Your task to perform on an android device: Open Chrome and go to settings Image 0: 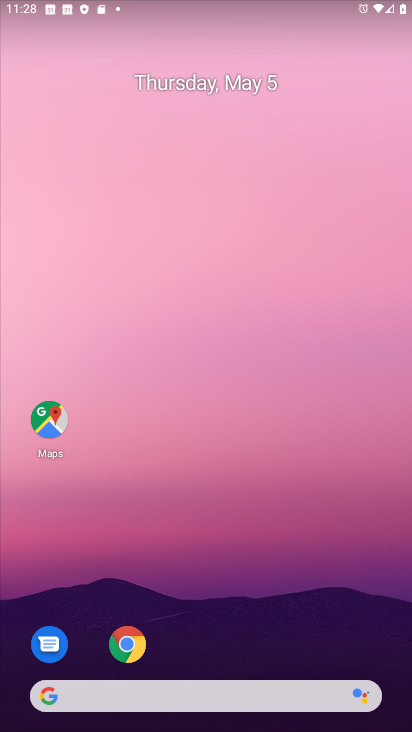
Step 0: drag from (230, 654) to (273, 294)
Your task to perform on an android device: Open Chrome and go to settings Image 1: 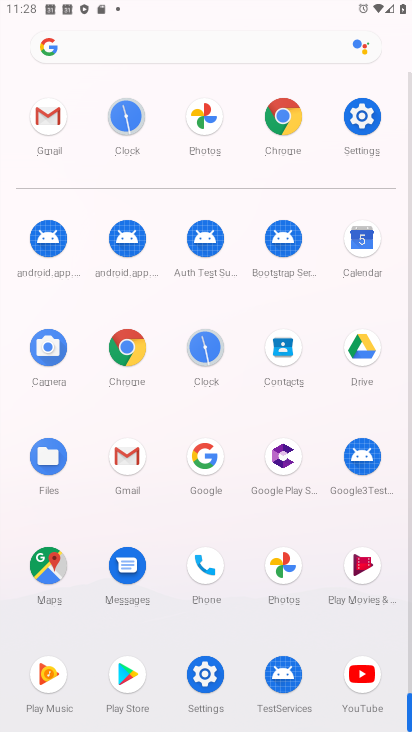
Step 1: drag from (264, 646) to (241, 379)
Your task to perform on an android device: Open Chrome and go to settings Image 2: 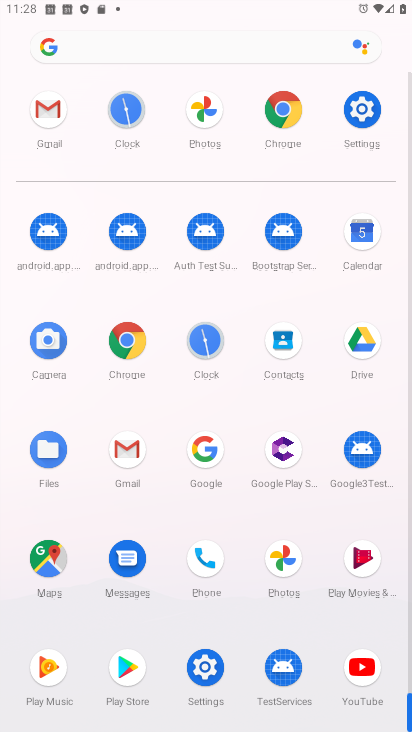
Step 2: drag from (248, 652) to (230, 474)
Your task to perform on an android device: Open Chrome and go to settings Image 3: 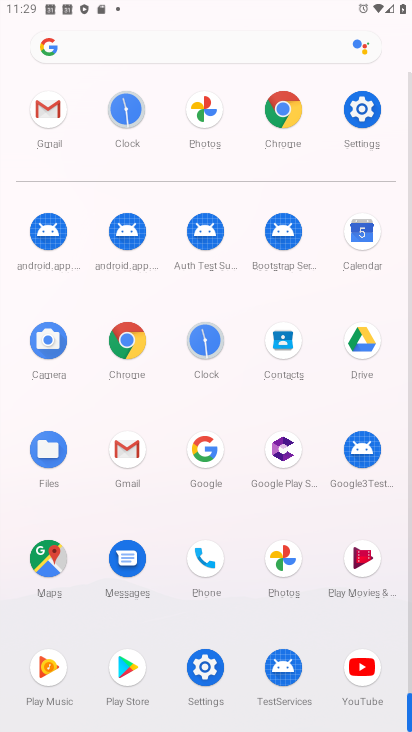
Step 3: drag from (207, 639) to (231, 315)
Your task to perform on an android device: Open Chrome and go to settings Image 4: 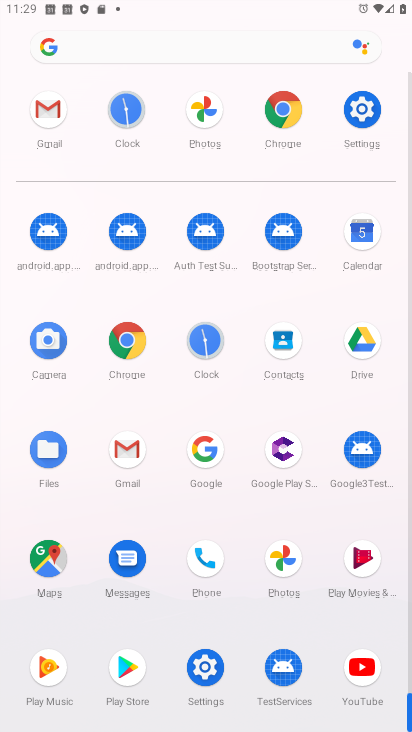
Step 4: drag from (225, 614) to (299, 162)
Your task to perform on an android device: Open Chrome and go to settings Image 5: 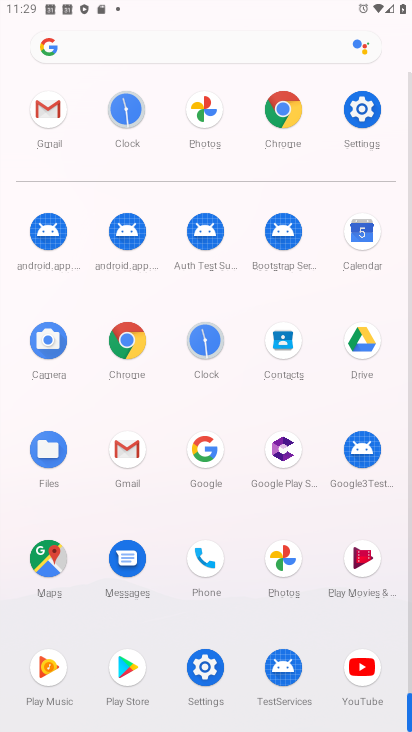
Step 5: click (205, 334)
Your task to perform on an android device: Open Chrome and go to settings Image 6: 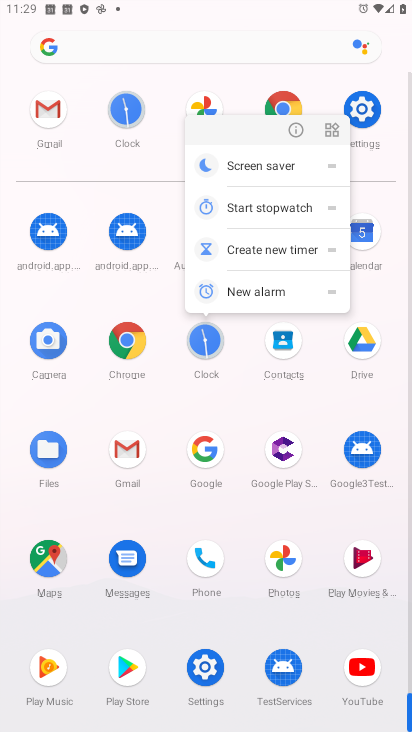
Step 6: click (282, 107)
Your task to perform on an android device: Open Chrome and go to settings Image 7: 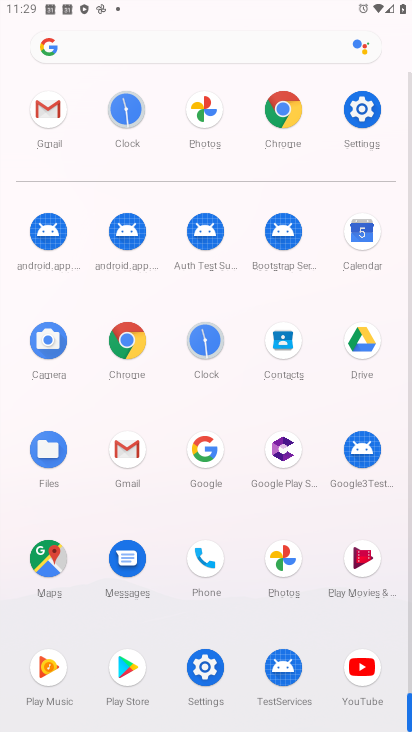
Step 7: click (273, 107)
Your task to perform on an android device: Open Chrome and go to settings Image 8: 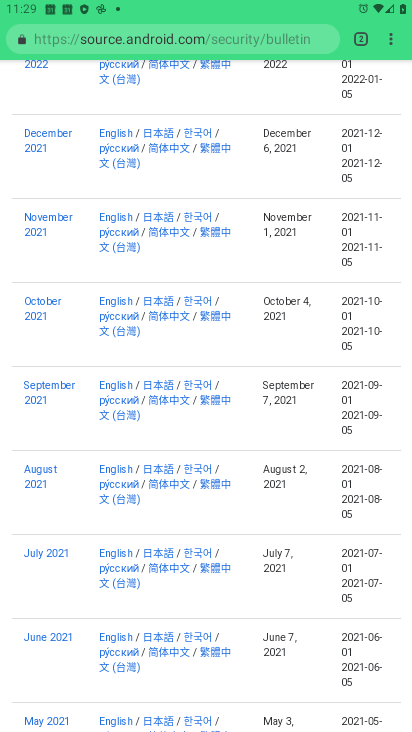
Step 8: drag from (248, 157) to (258, 720)
Your task to perform on an android device: Open Chrome and go to settings Image 9: 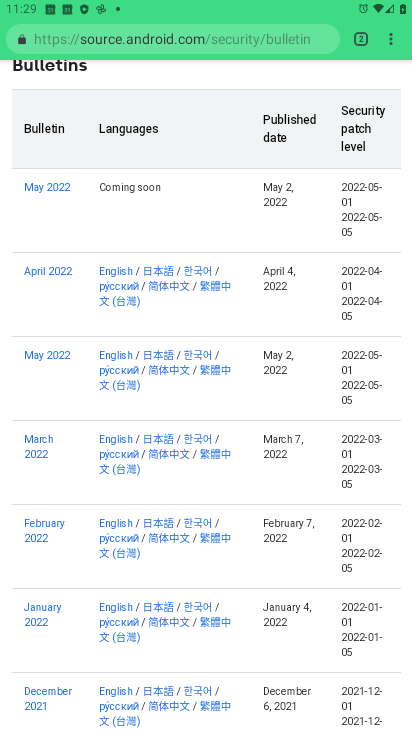
Step 9: click (393, 46)
Your task to perform on an android device: Open Chrome and go to settings Image 10: 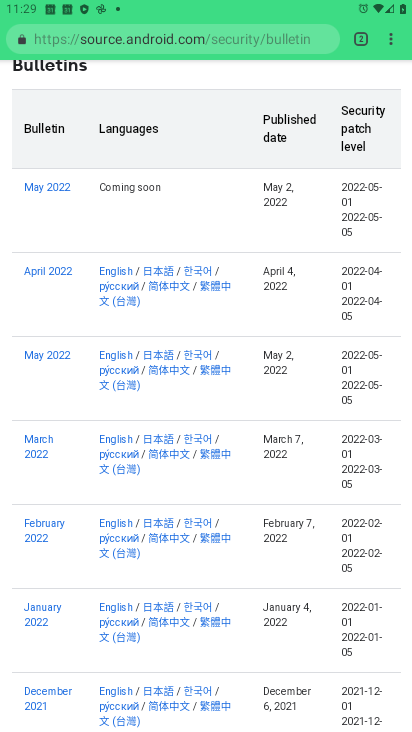
Step 10: task complete